Your task to perform on an android device: delete a single message in the gmail app Image 0: 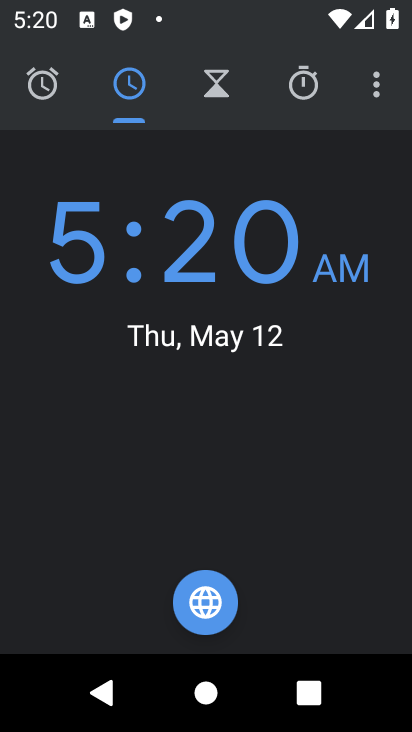
Step 0: click (392, 621)
Your task to perform on an android device: delete a single message in the gmail app Image 1: 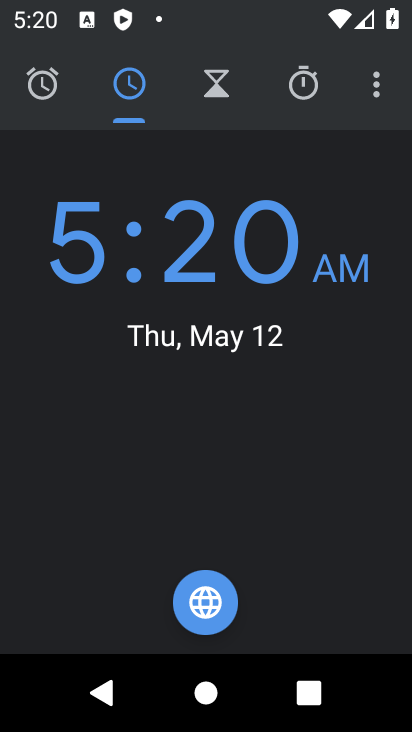
Step 1: press home button
Your task to perform on an android device: delete a single message in the gmail app Image 2: 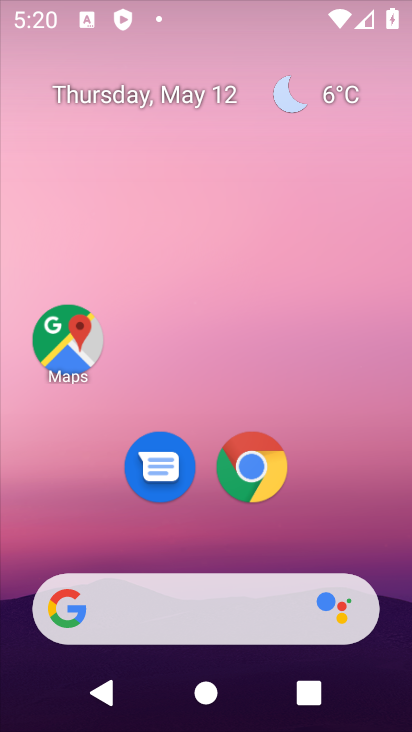
Step 2: drag from (248, 650) to (392, 8)
Your task to perform on an android device: delete a single message in the gmail app Image 3: 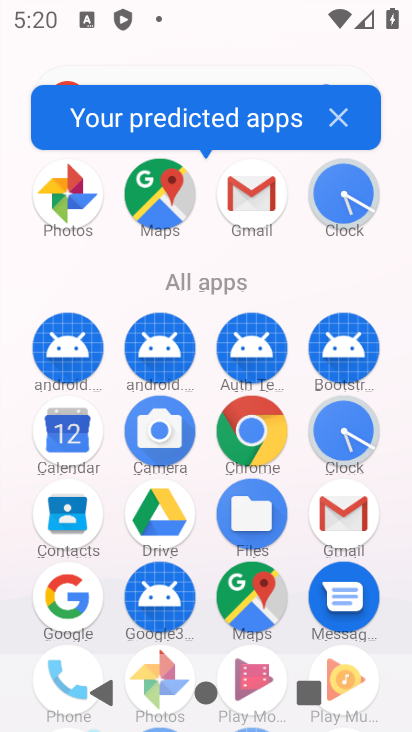
Step 3: click (321, 515)
Your task to perform on an android device: delete a single message in the gmail app Image 4: 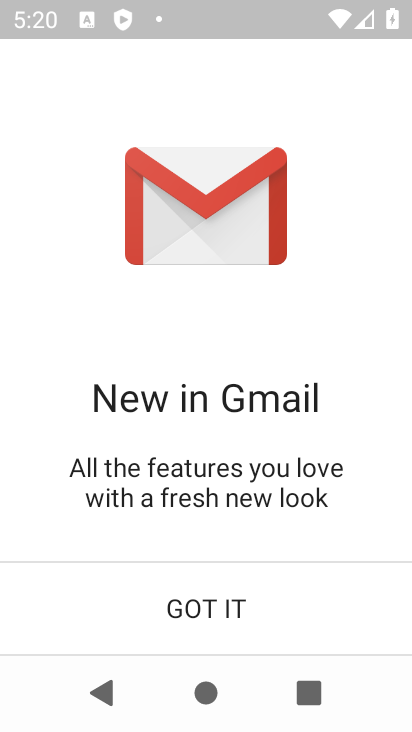
Step 4: click (286, 578)
Your task to perform on an android device: delete a single message in the gmail app Image 5: 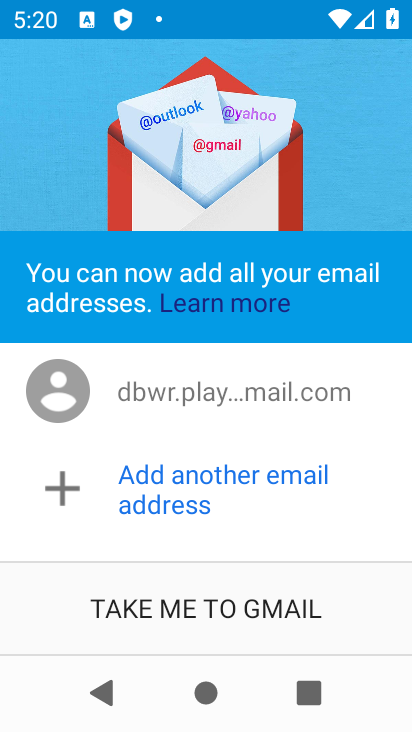
Step 5: click (281, 599)
Your task to perform on an android device: delete a single message in the gmail app Image 6: 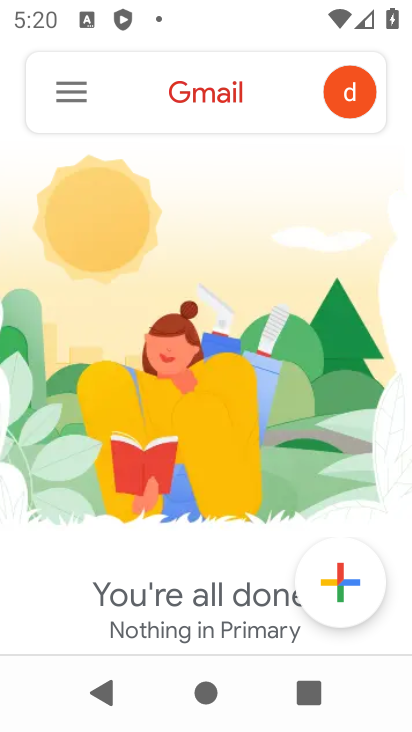
Step 6: click (56, 83)
Your task to perform on an android device: delete a single message in the gmail app Image 7: 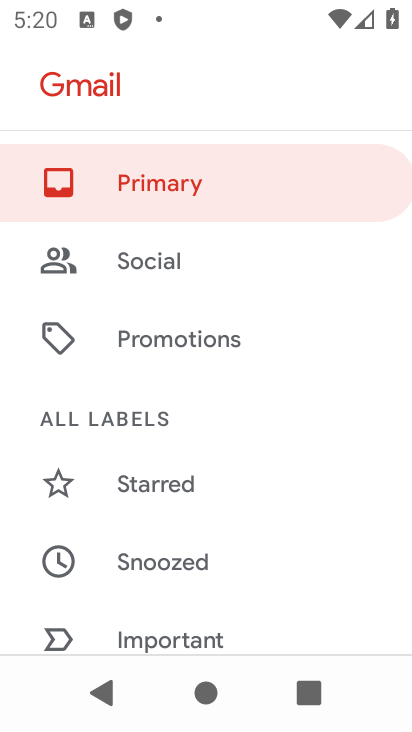
Step 7: task complete